Your task to perform on an android device: Go to Yahoo.com Image 0: 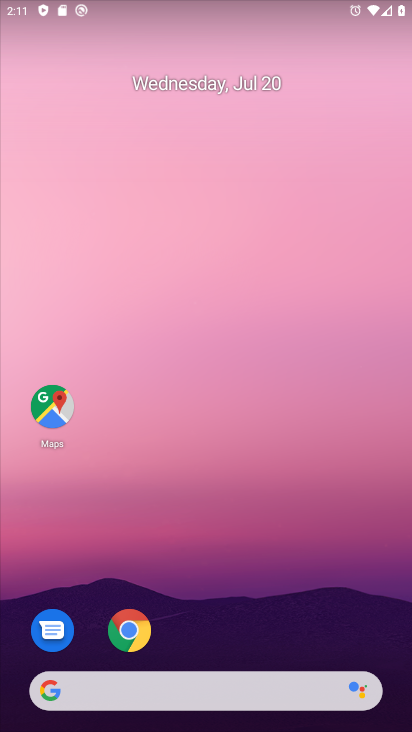
Step 0: press home button
Your task to perform on an android device: Go to Yahoo.com Image 1: 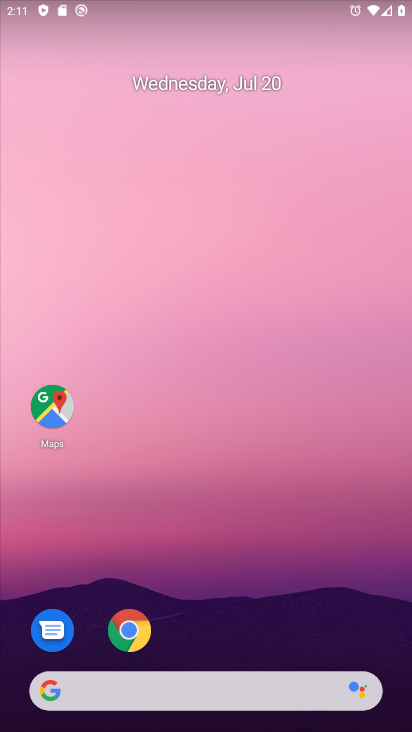
Step 1: drag from (35, 659) to (291, 132)
Your task to perform on an android device: Go to Yahoo.com Image 2: 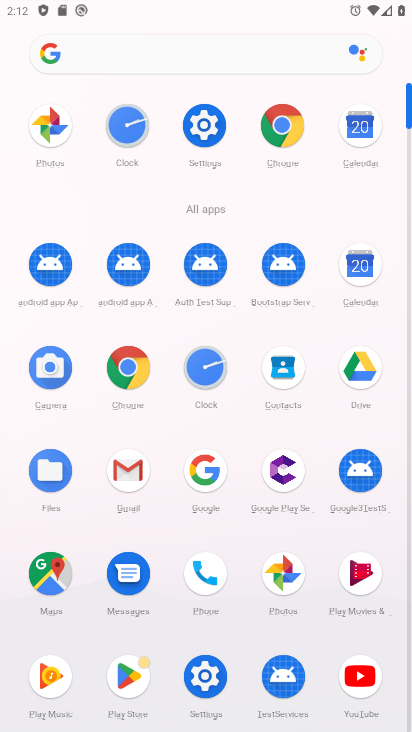
Step 2: click (268, 135)
Your task to perform on an android device: Go to Yahoo.com Image 3: 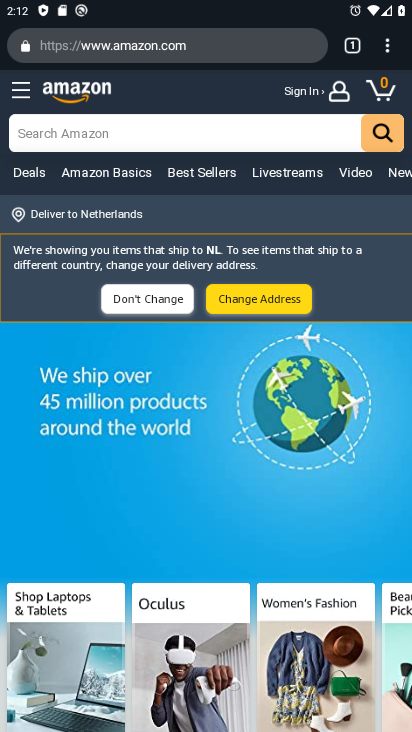
Step 3: click (367, 51)
Your task to perform on an android device: Go to Yahoo.com Image 4: 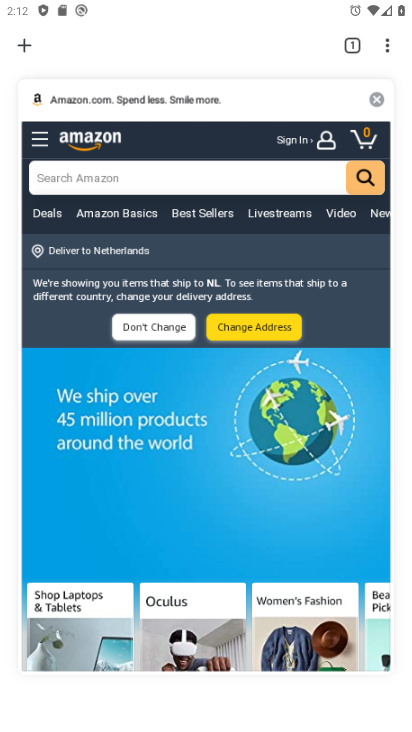
Step 4: click (378, 100)
Your task to perform on an android device: Go to Yahoo.com Image 5: 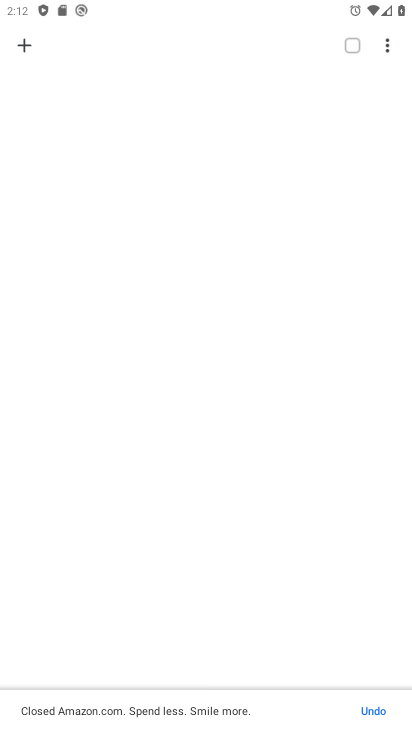
Step 5: click (20, 48)
Your task to perform on an android device: Go to Yahoo.com Image 6: 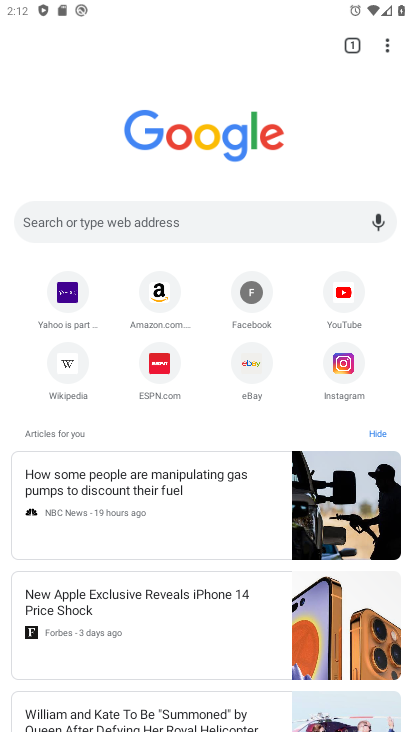
Step 6: click (78, 298)
Your task to perform on an android device: Go to Yahoo.com Image 7: 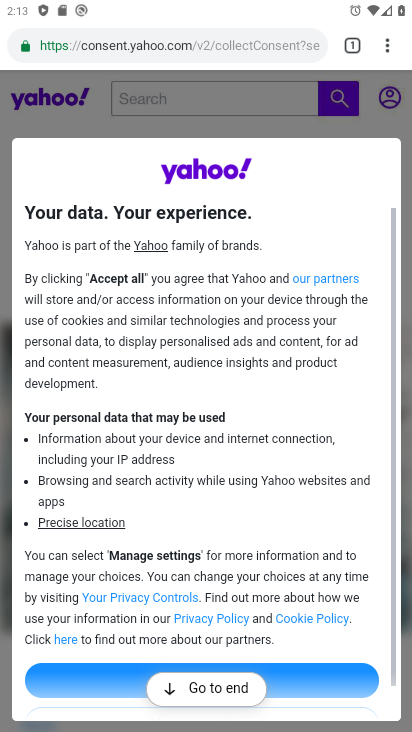
Step 7: task complete